Your task to perform on an android device: Go to battery settings Image 0: 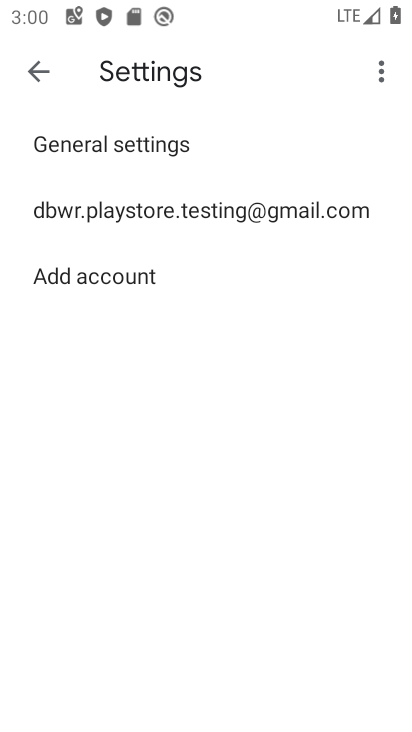
Step 0: press home button
Your task to perform on an android device: Go to battery settings Image 1: 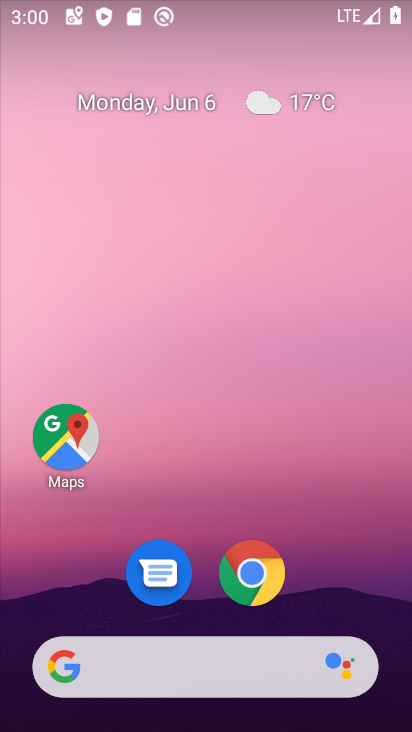
Step 1: drag from (364, 618) to (372, 138)
Your task to perform on an android device: Go to battery settings Image 2: 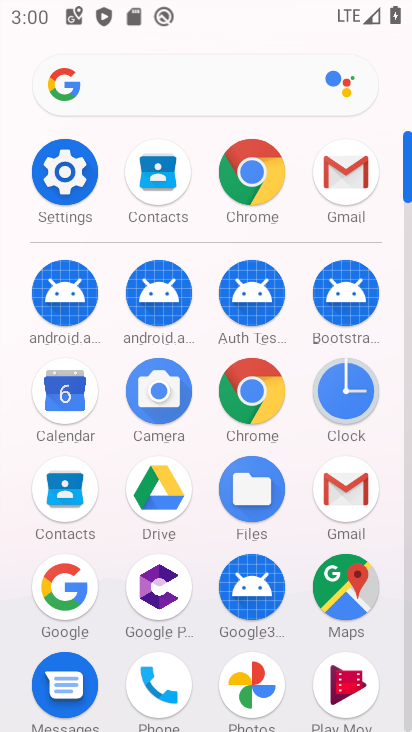
Step 2: click (71, 196)
Your task to perform on an android device: Go to battery settings Image 3: 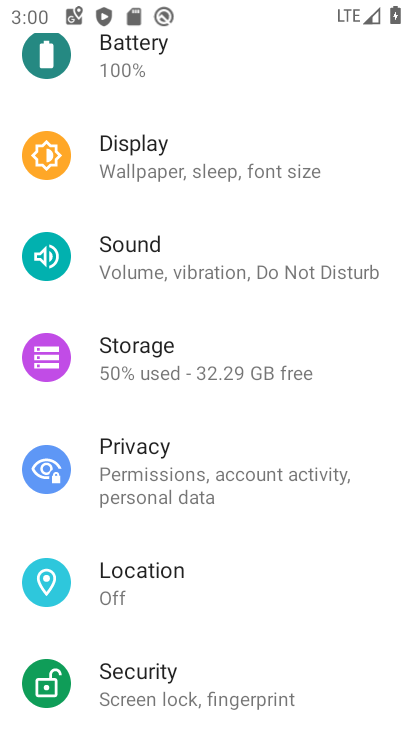
Step 3: drag from (332, 212) to (334, 333)
Your task to perform on an android device: Go to battery settings Image 4: 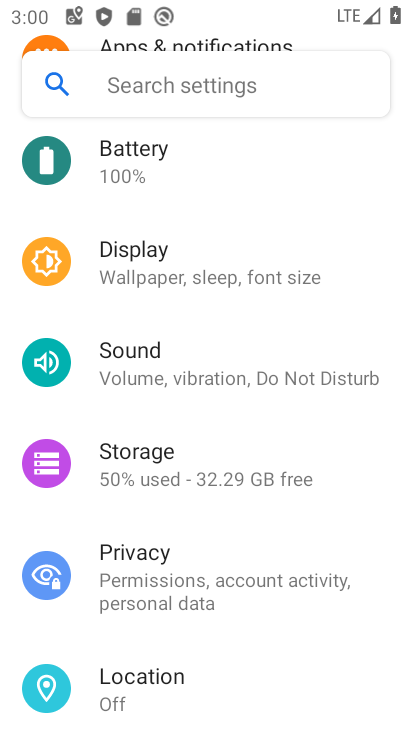
Step 4: drag from (338, 189) to (352, 364)
Your task to perform on an android device: Go to battery settings Image 5: 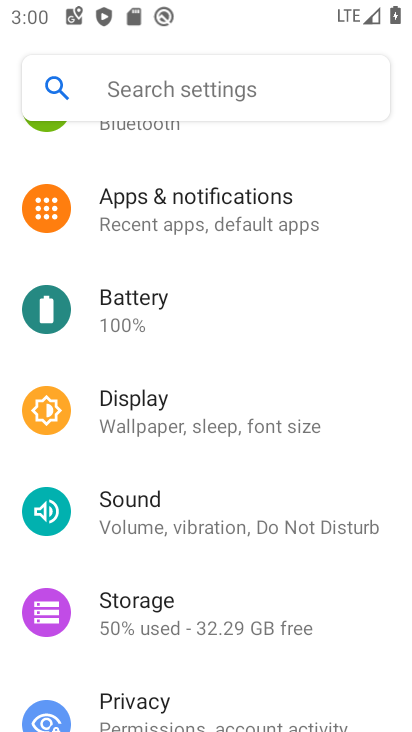
Step 5: drag from (370, 186) to (364, 361)
Your task to perform on an android device: Go to battery settings Image 6: 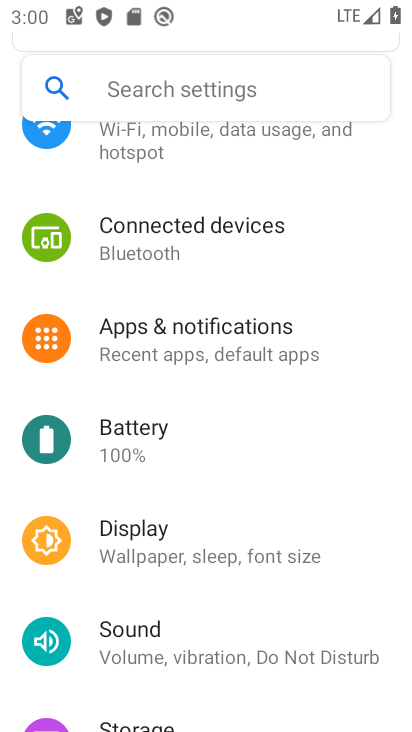
Step 6: drag from (347, 246) to (357, 438)
Your task to perform on an android device: Go to battery settings Image 7: 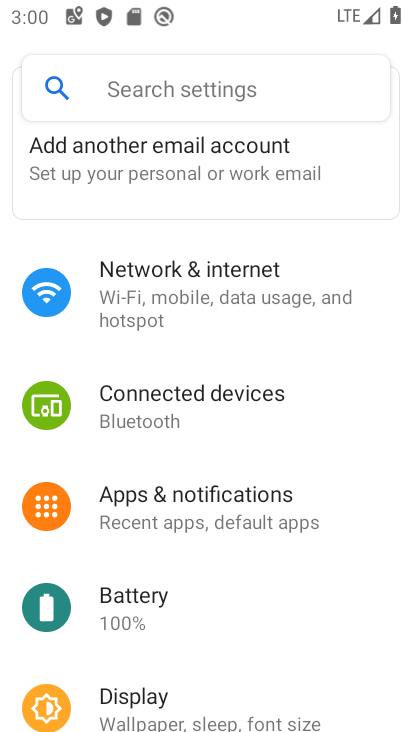
Step 7: drag from (372, 226) to (360, 422)
Your task to perform on an android device: Go to battery settings Image 8: 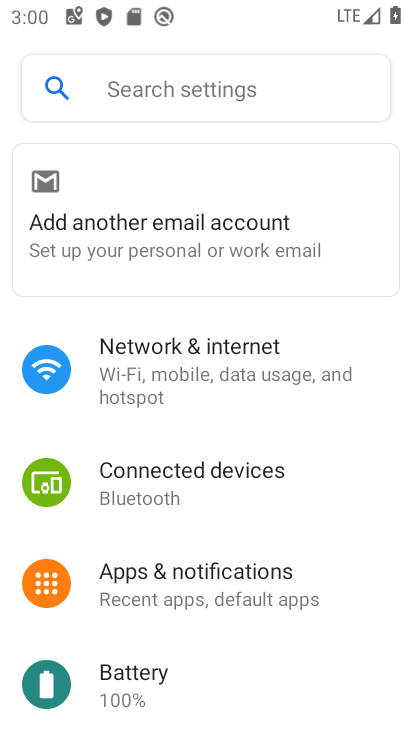
Step 8: drag from (339, 510) to (341, 364)
Your task to perform on an android device: Go to battery settings Image 9: 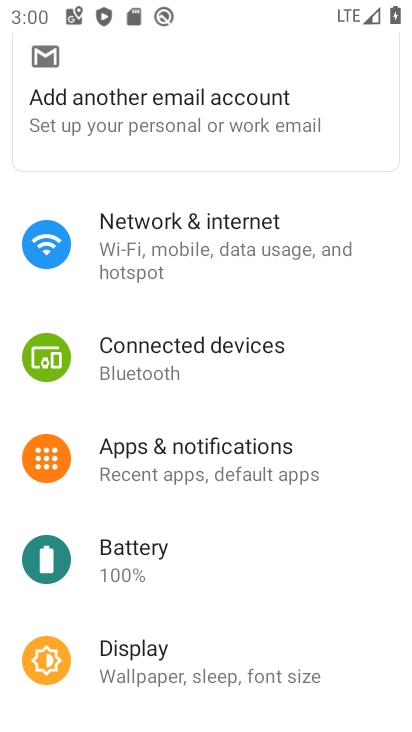
Step 9: drag from (336, 545) to (346, 368)
Your task to perform on an android device: Go to battery settings Image 10: 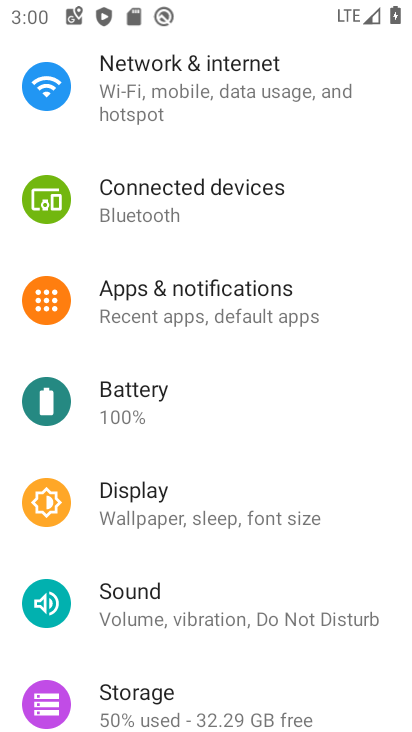
Step 10: click (198, 403)
Your task to perform on an android device: Go to battery settings Image 11: 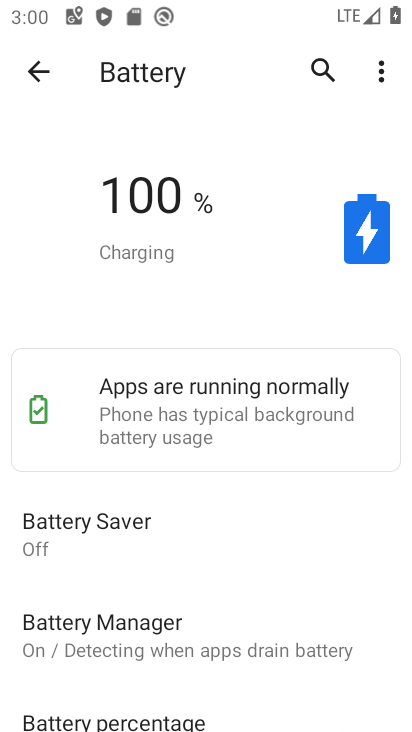
Step 11: task complete